Your task to perform on an android device: What's the weather going to be tomorrow? Image 0: 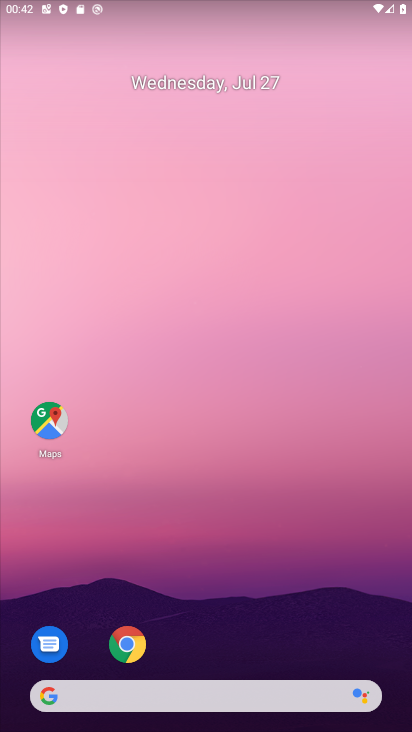
Step 0: drag from (254, 632) to (226, 212)
Your task to perform on an android device: What's the weather going to be tomorrow? Image 1: 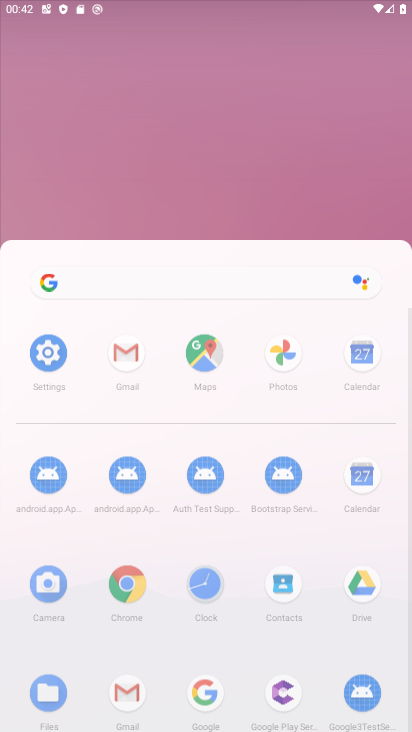
Step 1: drag from (253, 575) to (253, 200)
Your task to perform on an android device: What's the weather going to be tomorrow? Image 2: 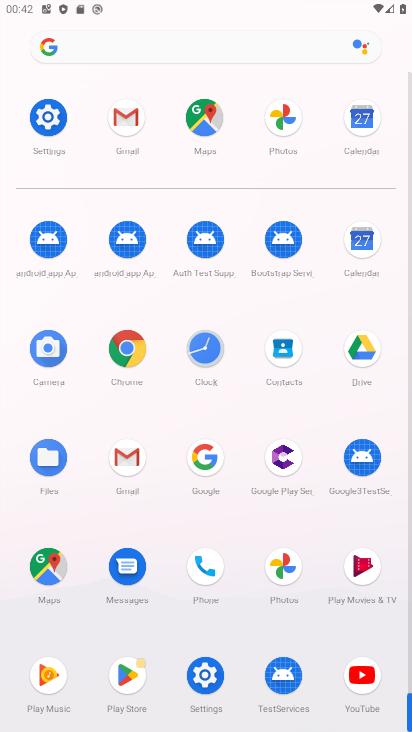
Step 2: click (122, 351)
Your task to perform on an android device: What's the weather going to be tomorrow? Image 3: 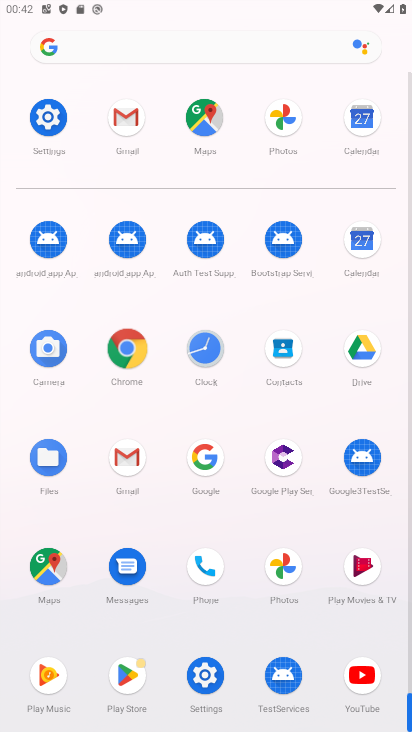
Step 3: click (131, 349)
Your task to perform on an android device: What's the weather going to be tomorrow? Image 4: 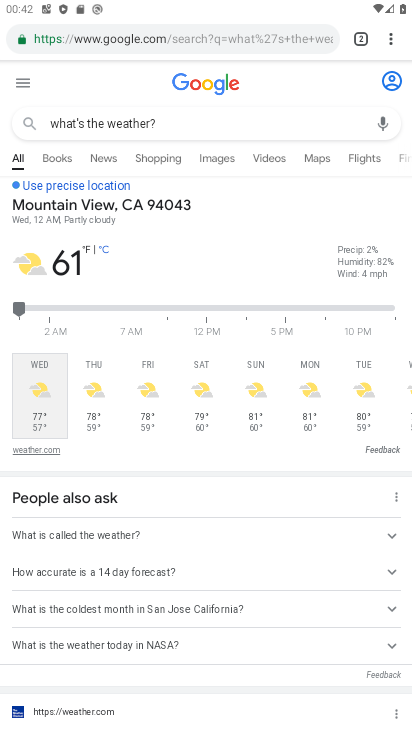
Step 4: drag from (177, 131) to (233, 156)
Your task to perform on an android device: What's the weather going to be tomorrow? Image 5: 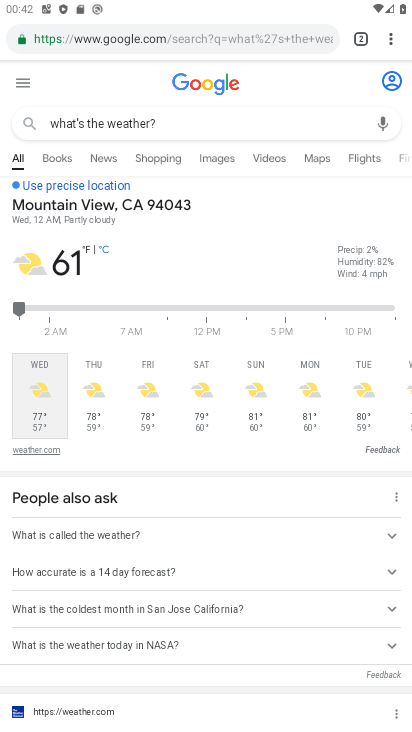
Step 5: drag from (233, 516) to (244, 241)
Your task to perform on an android device: What's the weather going to be tomorrow? Image 6: 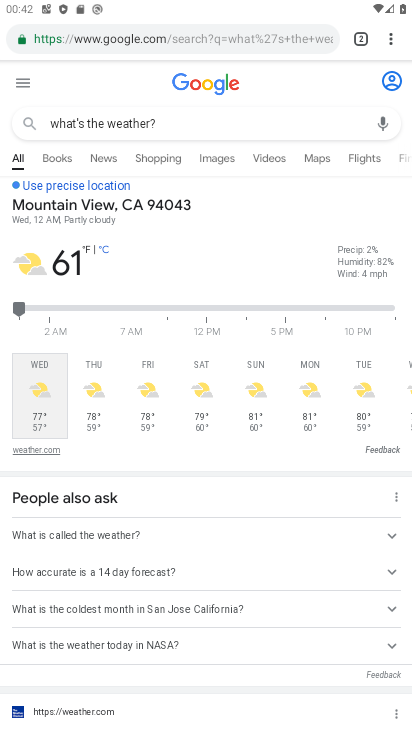
Step 6: click (147, 132)
Your task to perform on an android device: What's the weather going to be tomorrow? Image 7: 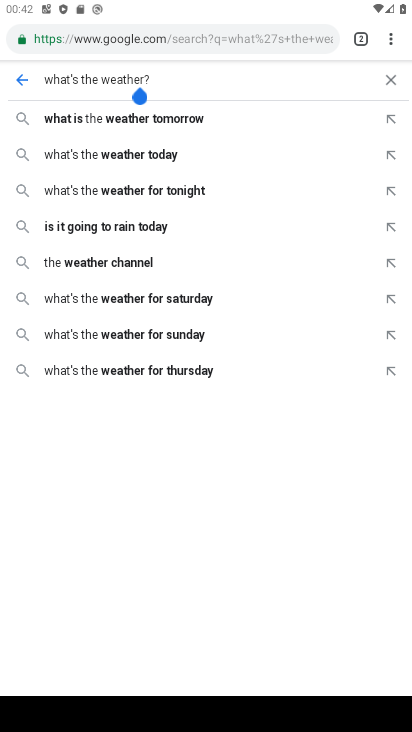
Step 7: task complete